Your task to perform on an android device: stop showing notifications on the lock screen Image 0: 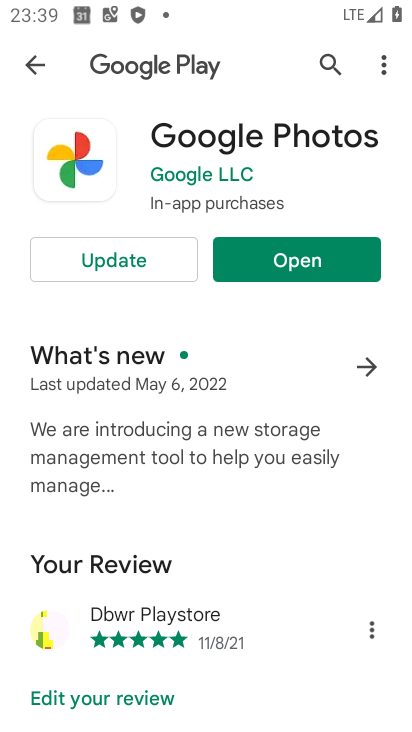
Step 0: press home button
Your task to perform on an android device: stop showing notifications on the lock screen Image 1: 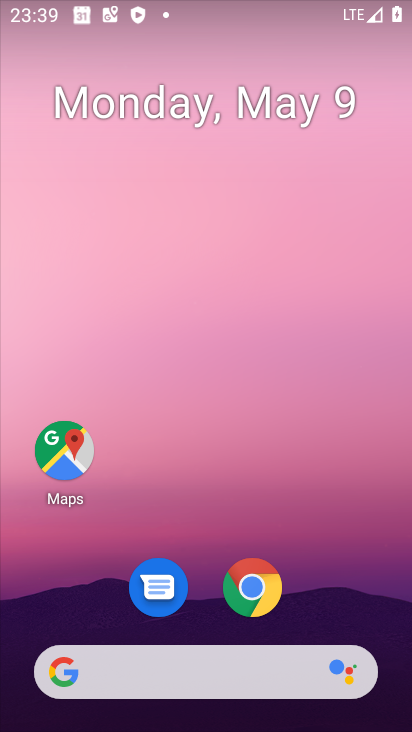
Step 1: drag from (202, 617) to (254, 3)
Your task to perform on an android device: stop showing notifications on the lock screen Image 2: 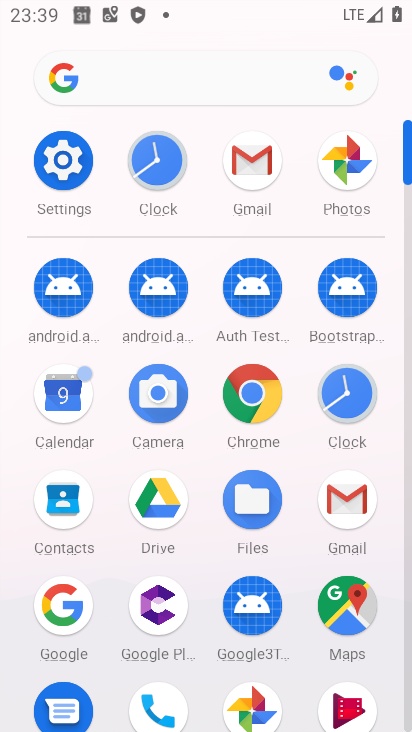
Step 2: click (63, 154)
Your task to perform on an android device: stop showing notifications on the lock screen Image 3: 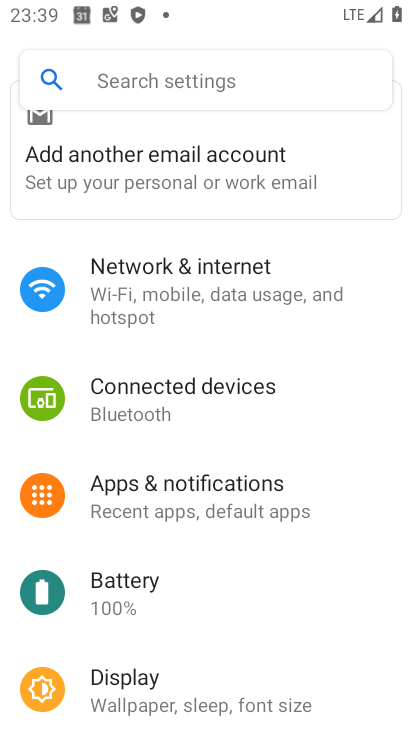
Step 3: click (143, 490)
Your task to perform on an android device: stop showing notifications on the lock screen Image 4: 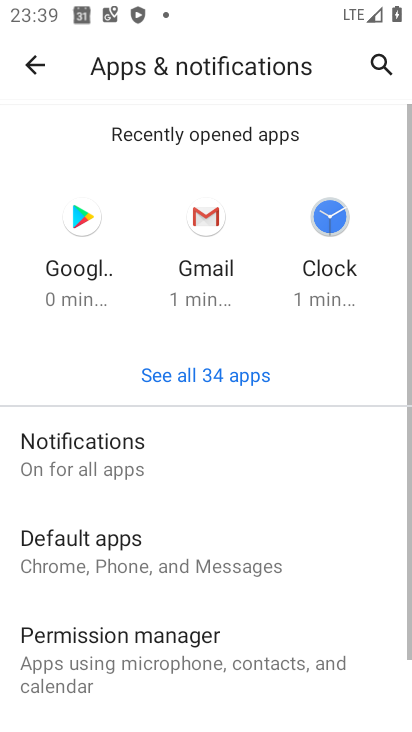
Step 4: drag from (143, 490) to (167, 264)
Your task to perform on an android device: stop showing notifications on the lock screen Image 5: 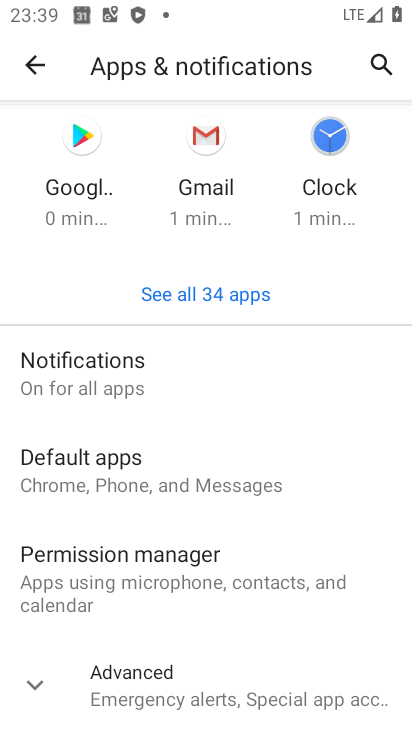
Step 5: drag from (179, 715) to (206, 321)
Your task to perform on an android device: stop showing notifications on the lock screen Image 6: 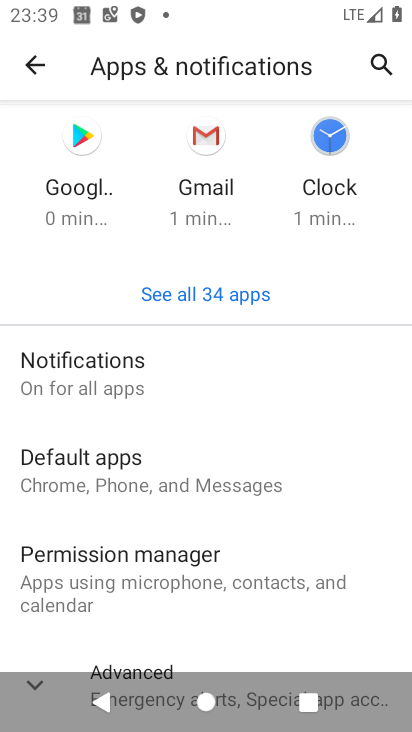
Step 6: drag from (212, 500) to (282, 59)
Your task to perform on an android device: stop showing notifications on the lock screen Image 7: 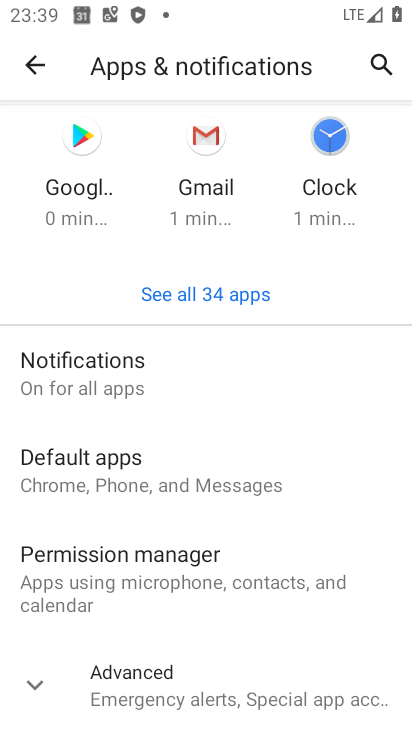
Step 7: click (156, 354)
Your task to perform on an android device: stop showing notifications on the lock screen Image 8: 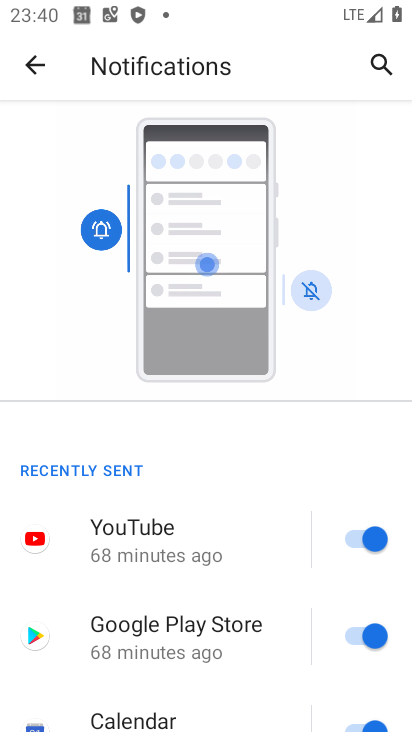
Step 8: drag from (188, 662) to (347, 87)
Your task to perform on an android device: stop showing notifications on the lock screen Image 9: 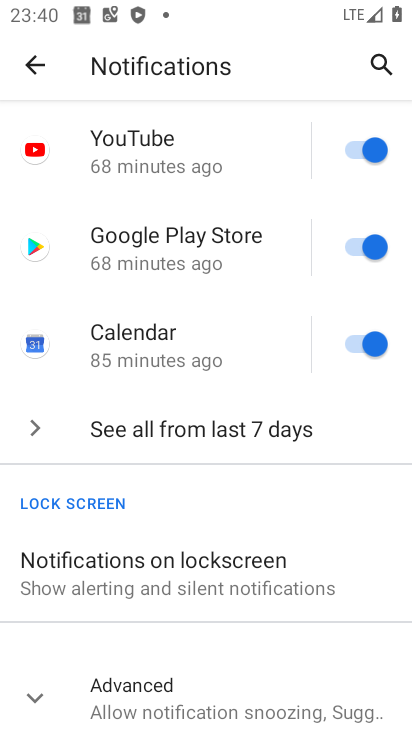
Step 9: click (199, 579)
Your task to perform on an android device: stop showing notifications on the lock screen Image 10: 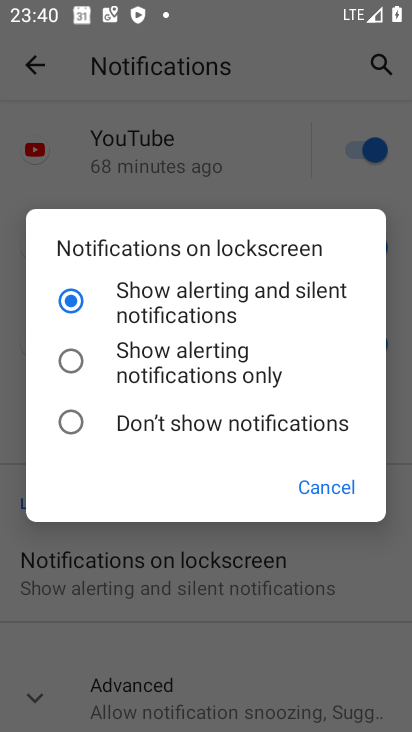
Step 10: click (201, 440)
Your task to perform on an android device: stop showing notifications on the lock screen Image 11: 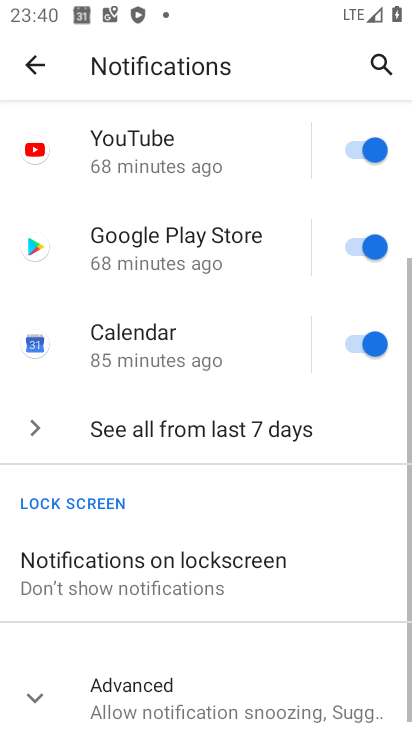
Step 11: task complete